Your task to perform on an android device: Search for hotels in Washington DC Image 0: 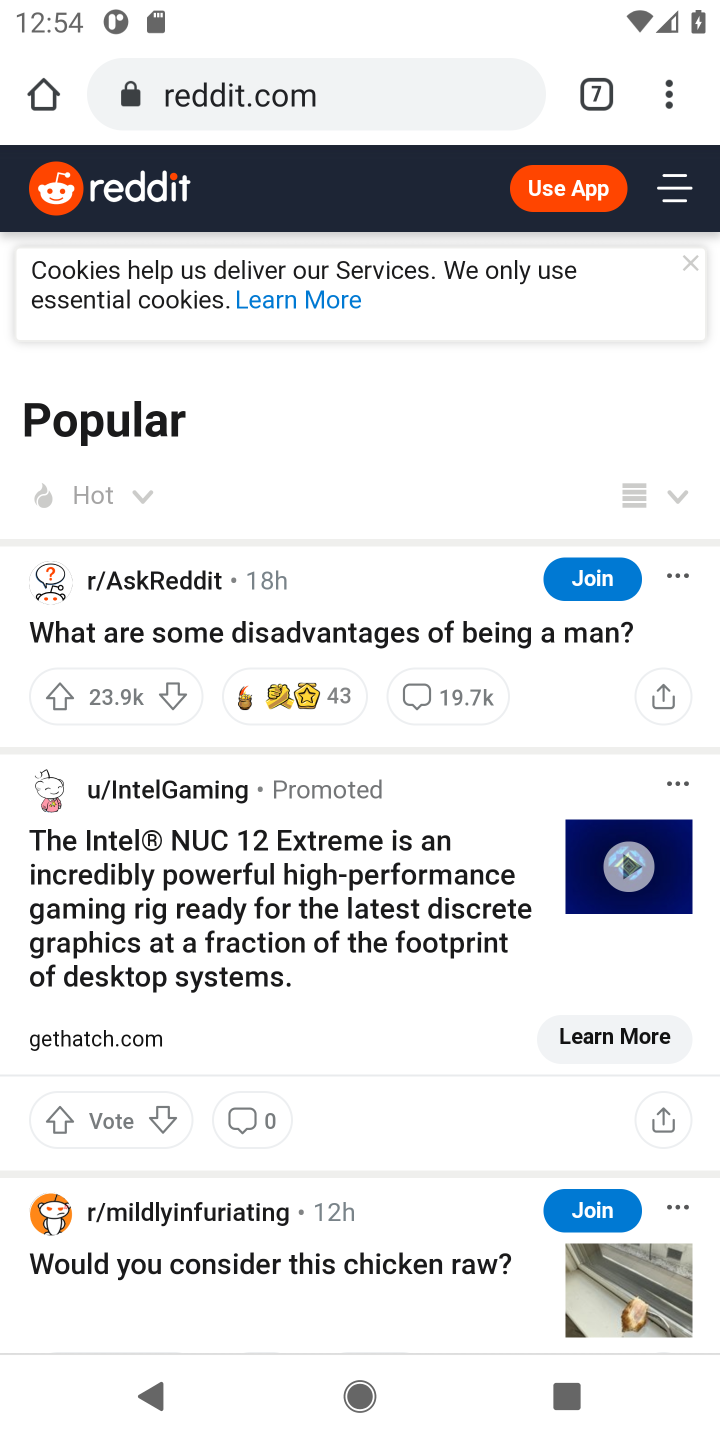
Step 0: press home button
Your task to perform on an android device: Search for hotels in Washington DC Image 1: 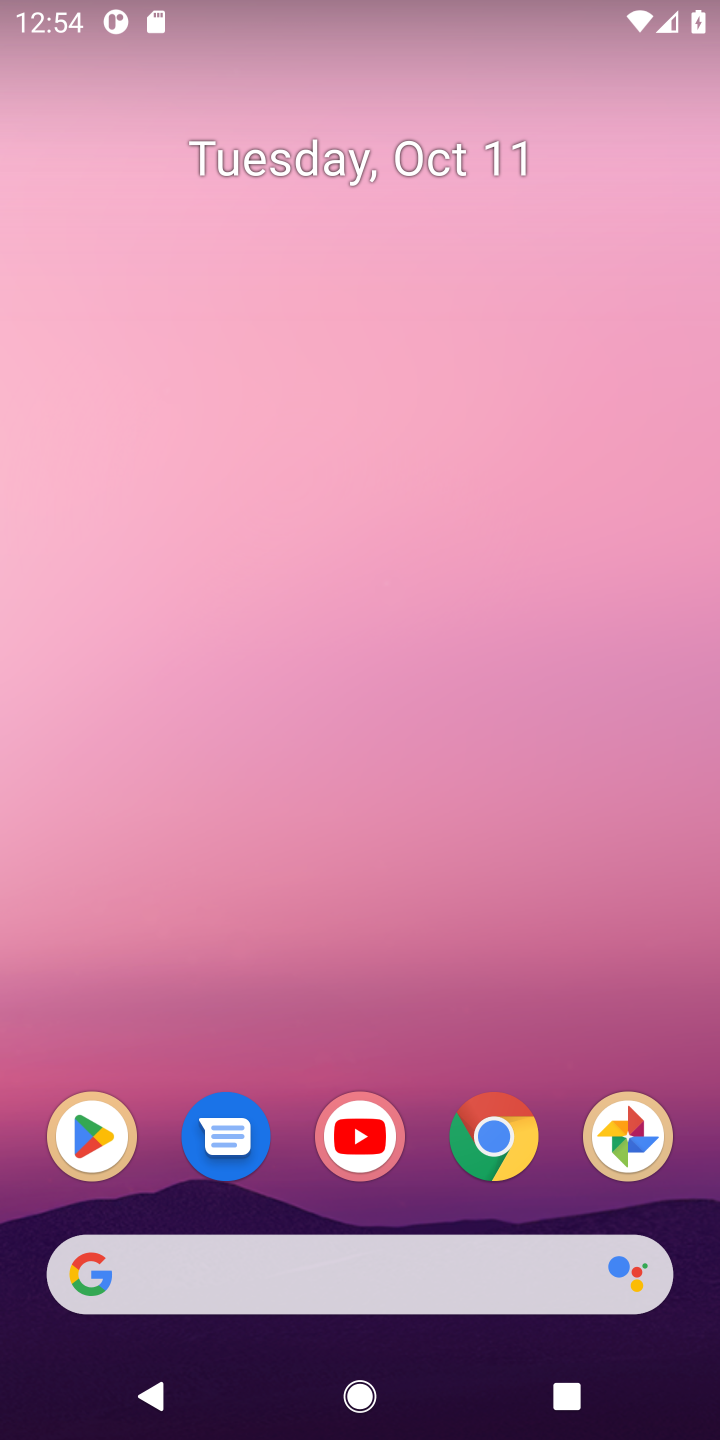
Step 1: click (342, 1268)
Your task to perform on an android device: Search for hotels in Washington DC Image 2: 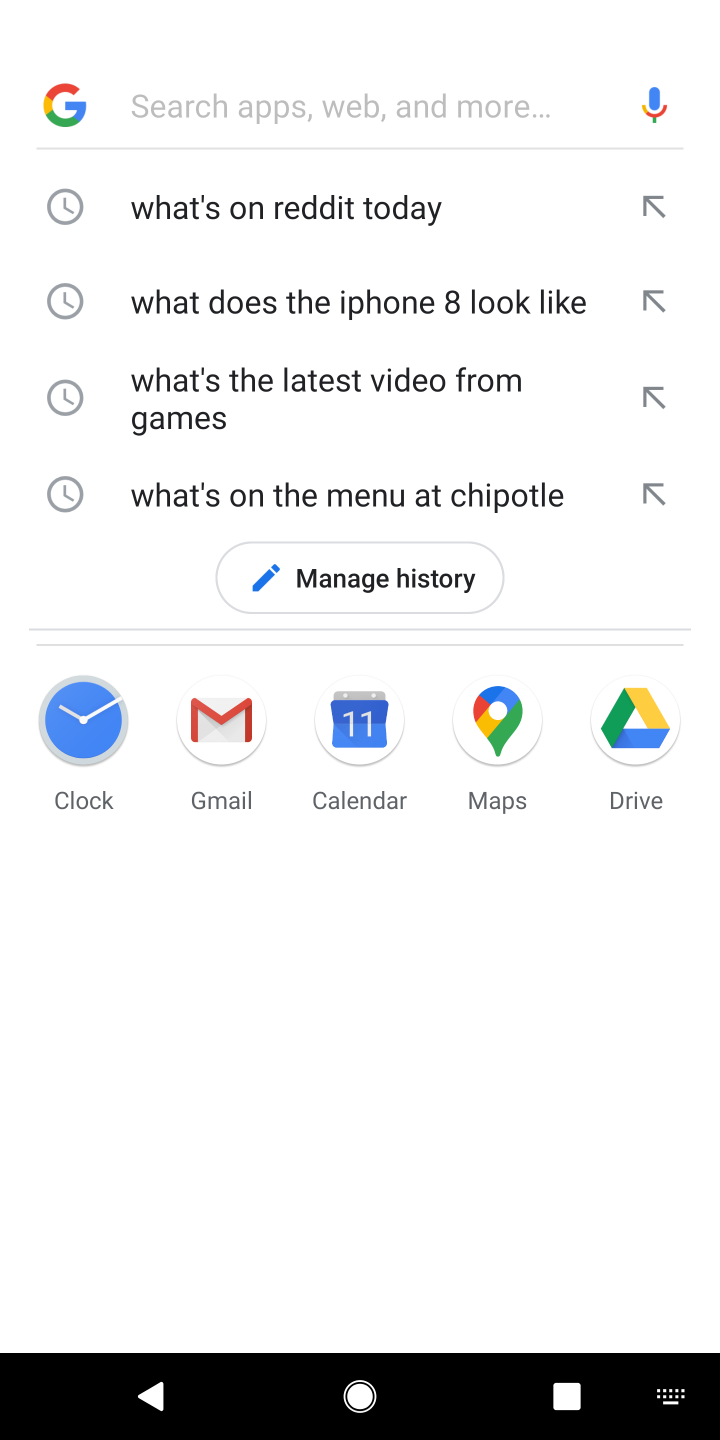
Step 2: type "hotels in Washington DC"
Your task to perform on an android device: Search for hotels in Washington DC Image 3: 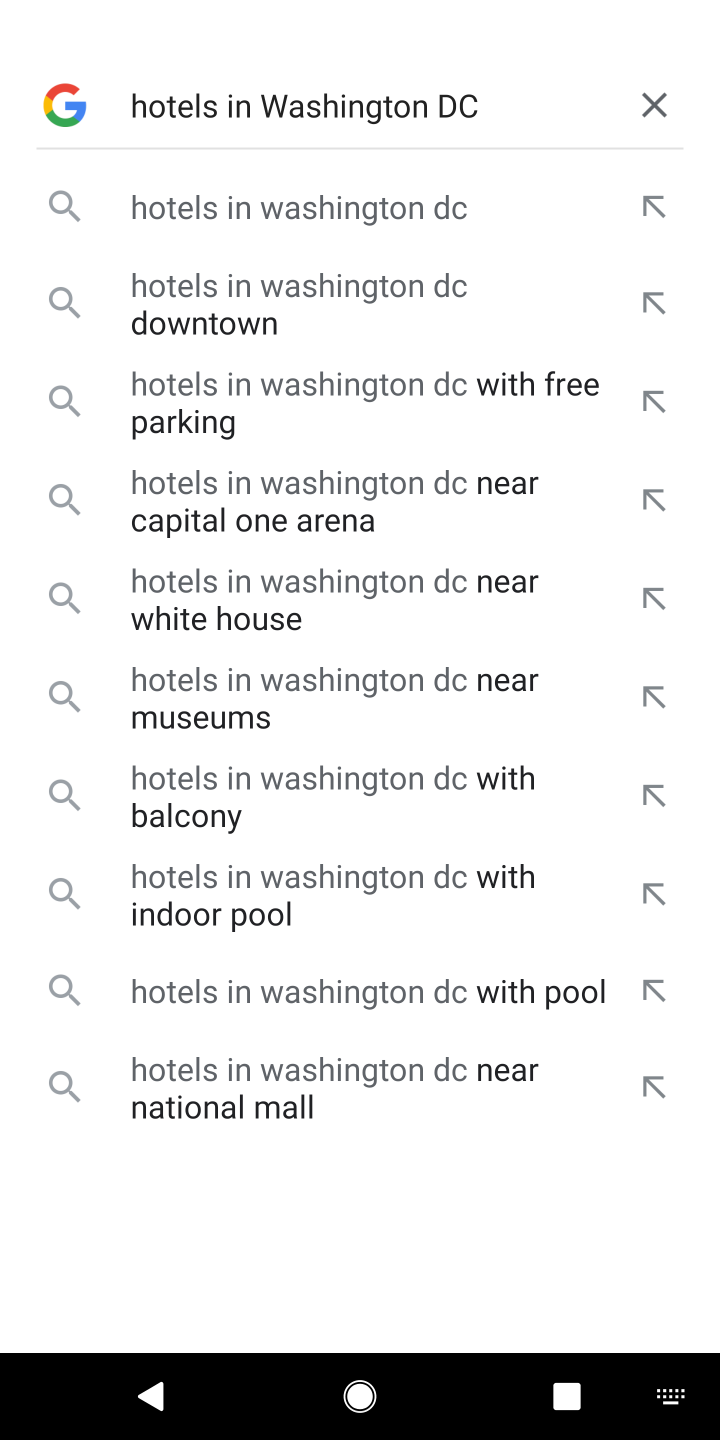
Step 3: press enter
Your task to perform on an android device: Search for hotels in Washington DC Image 4: 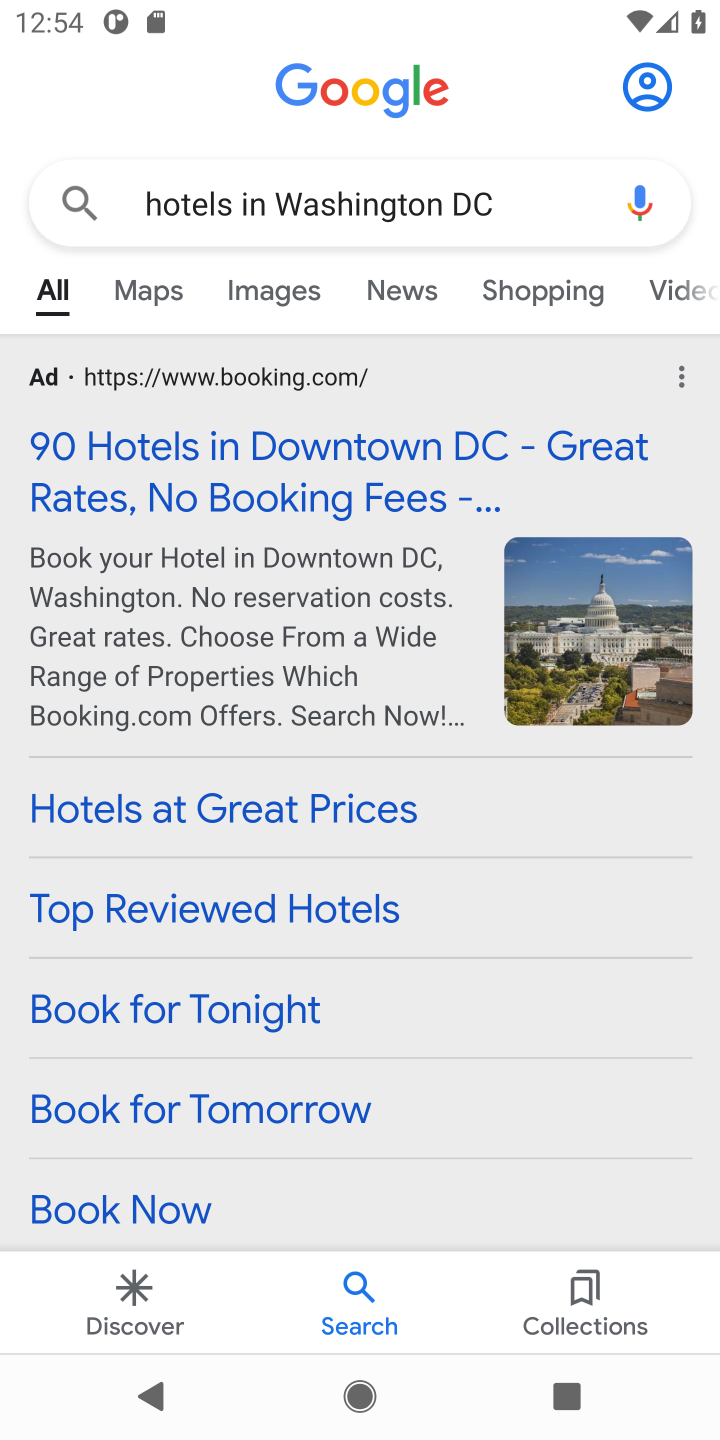
Step 4: drag from (482, 1032) to (481, 755)
Your task to perform on an android device: Search for hotels in Washington DC Image 5: 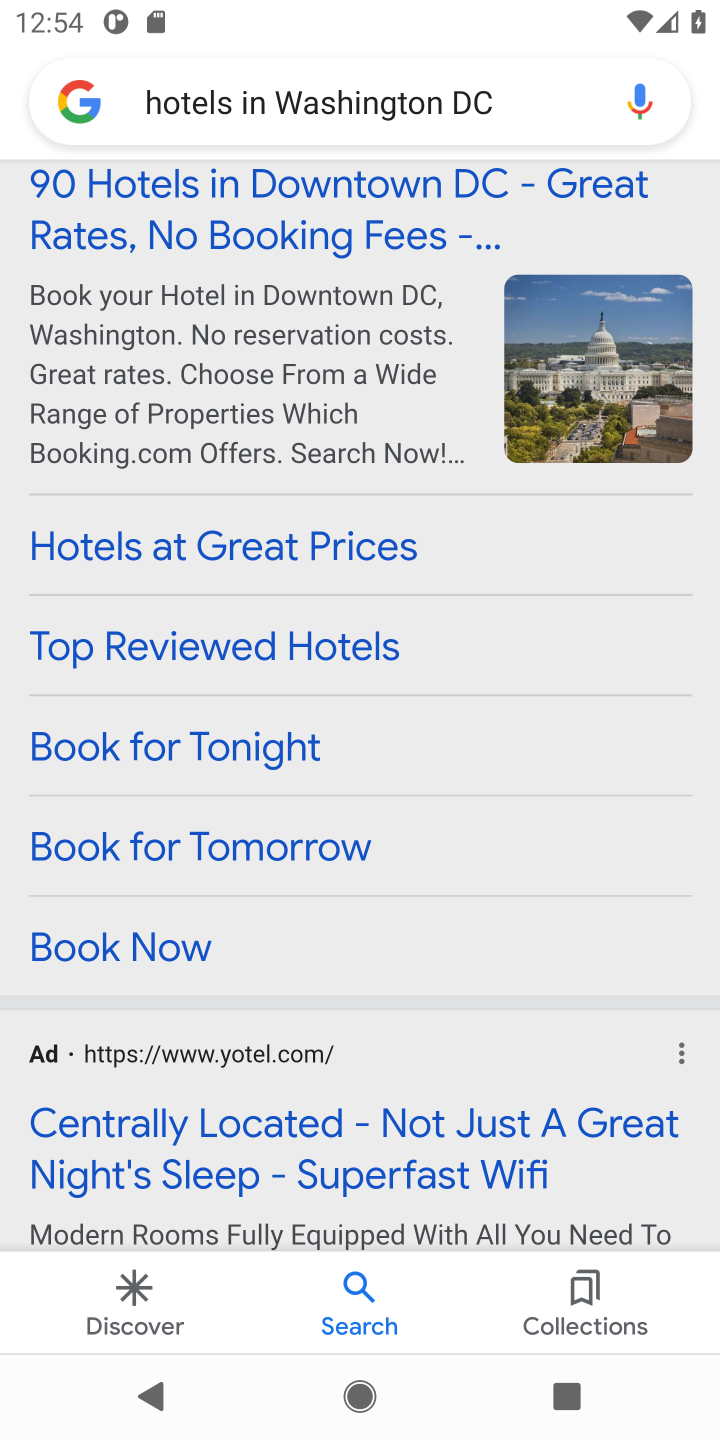
Step 5: drag from (425, 353) to (471, 888)
Your task to perform on an android device: Search for hotels in Washington DC Image 6: 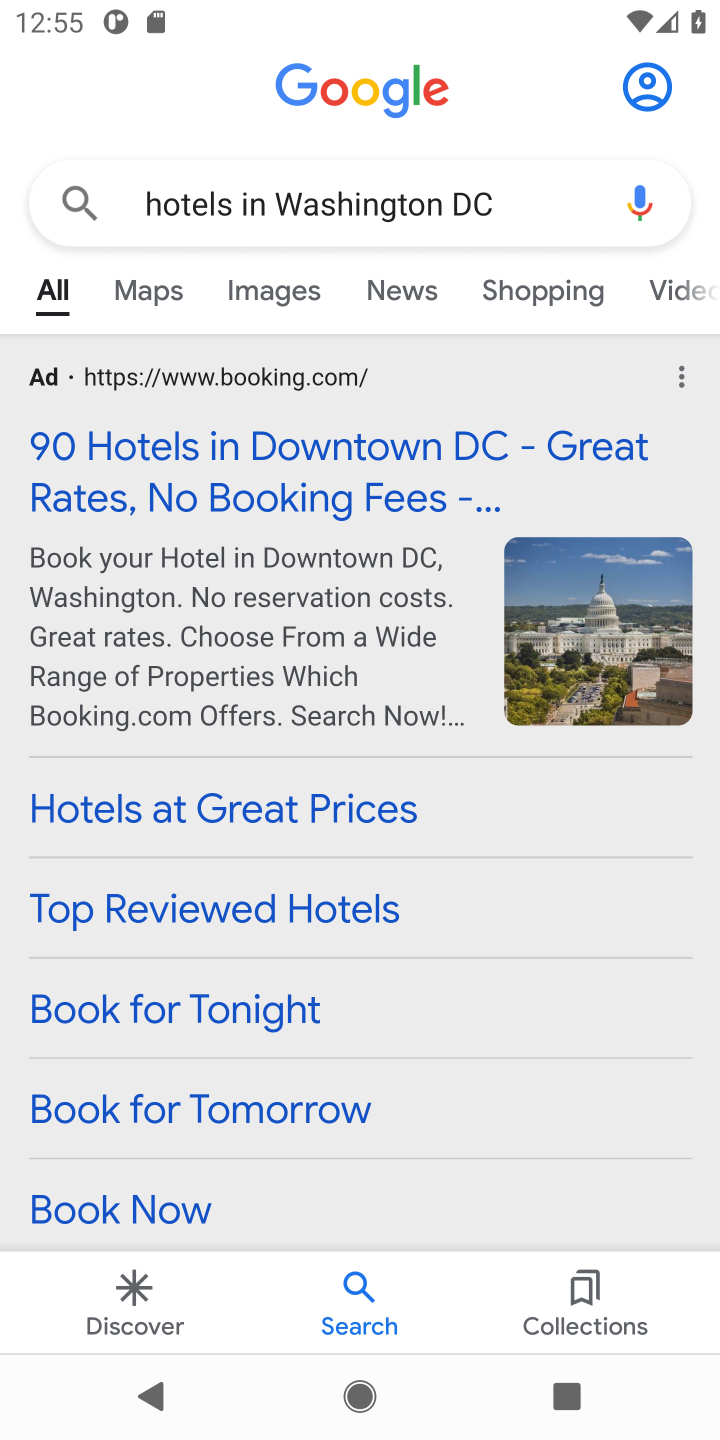
Step 6: click (289, 485)
Your task to perform on an android device: Search for hotels in Washington DC Image 7: 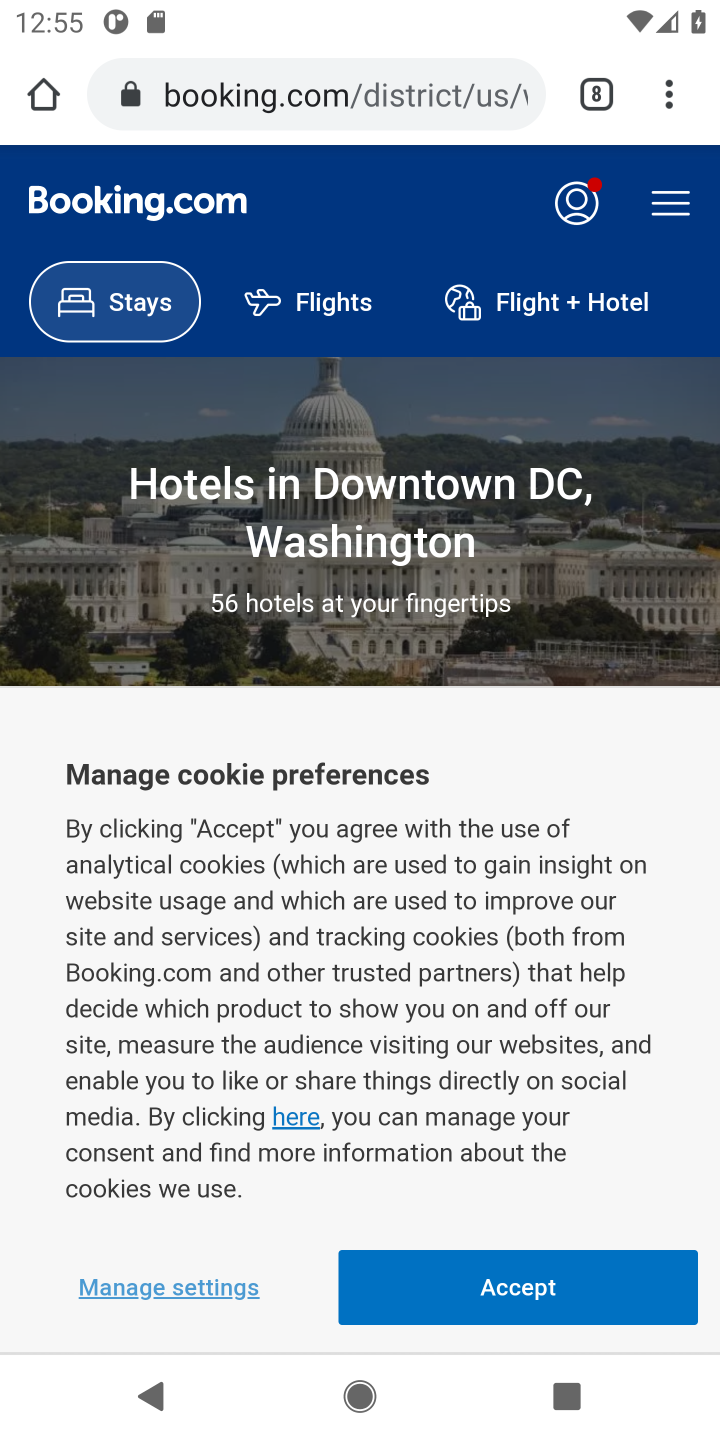
Step 7: click (439, 1301)
Your task to perform on an android device: Search for hotels in Washington DC Image 8: 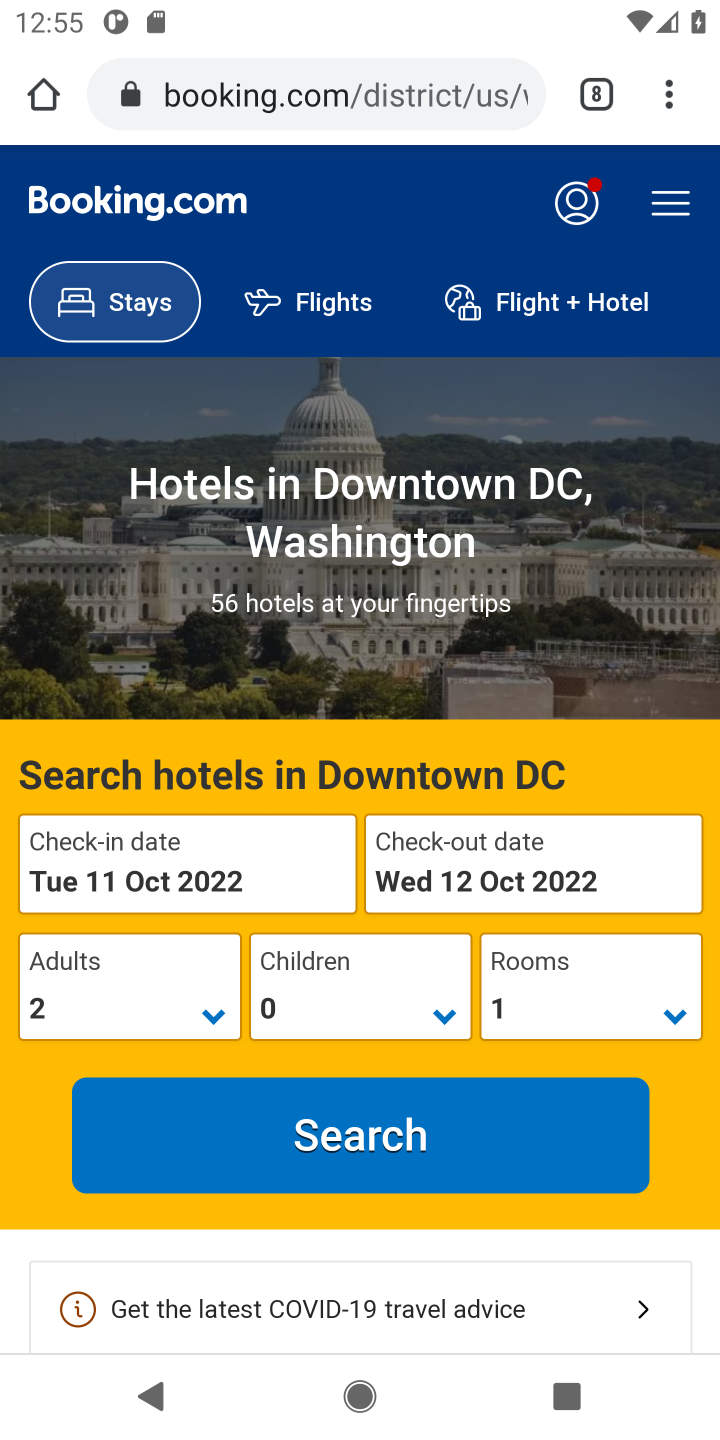
Step 8: click (388, 1157)
Your task to perform on an android device: Search for hotels in Washington DC Image 9: 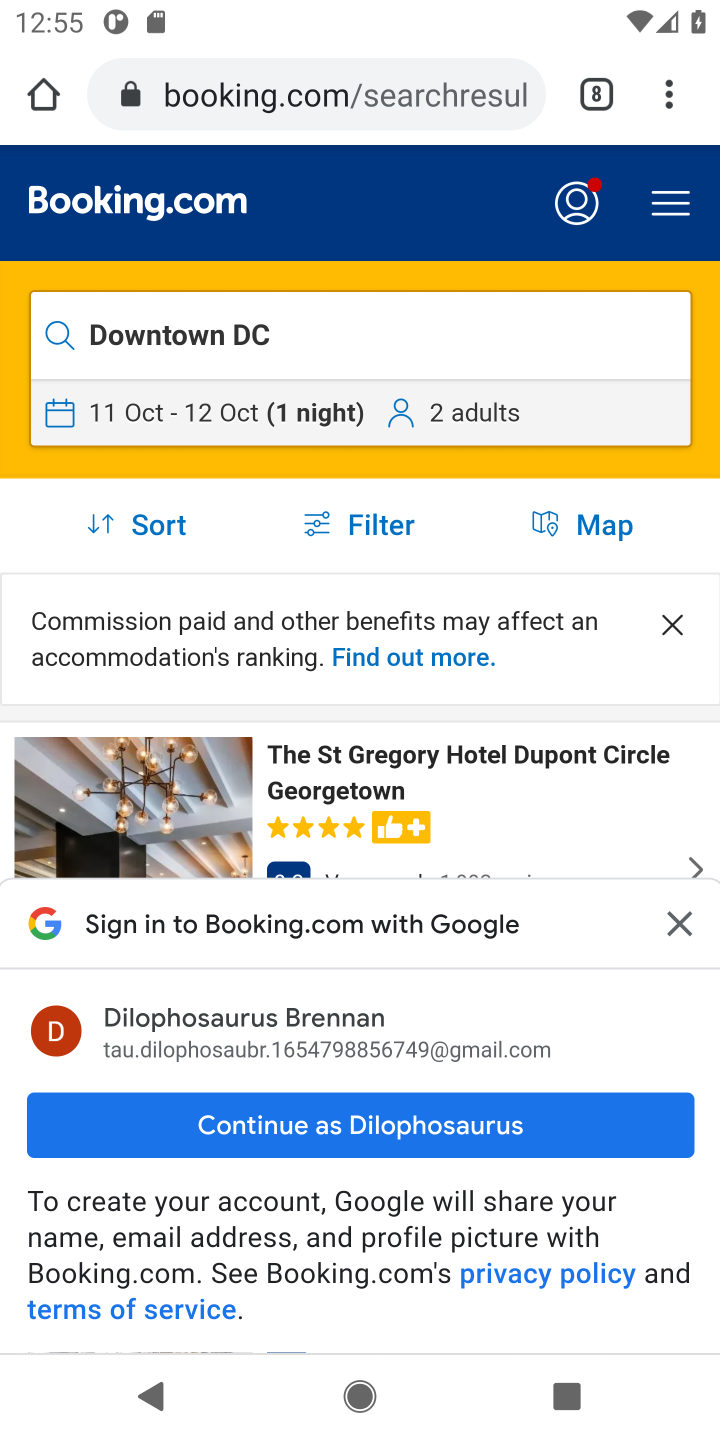
Step 9: click (510, 1133)
Your task to perform on an android device: Search for hotels in Washington DC Image 10: 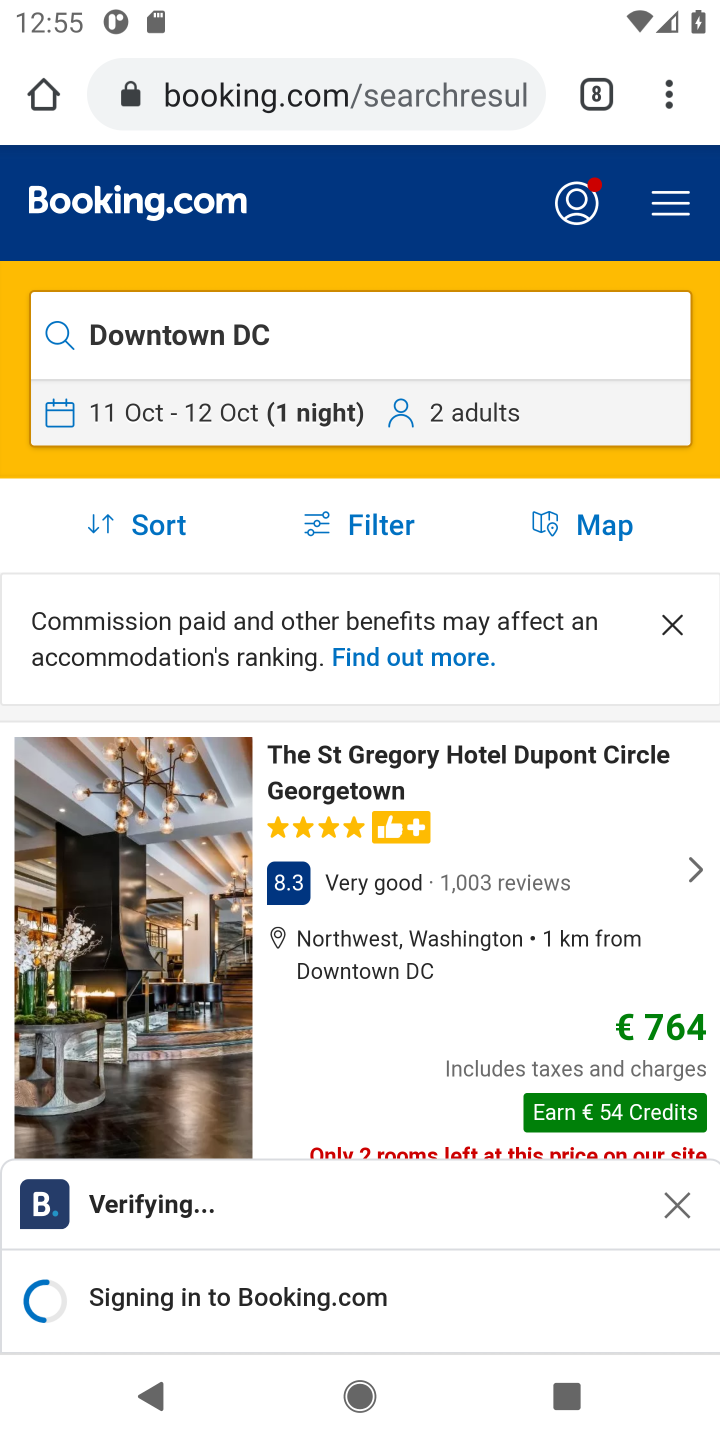
Step 10: drag from (510, 951) to (519, 642)
Your task to perform on an android device: Search for hotels in Washington DC Image 11: 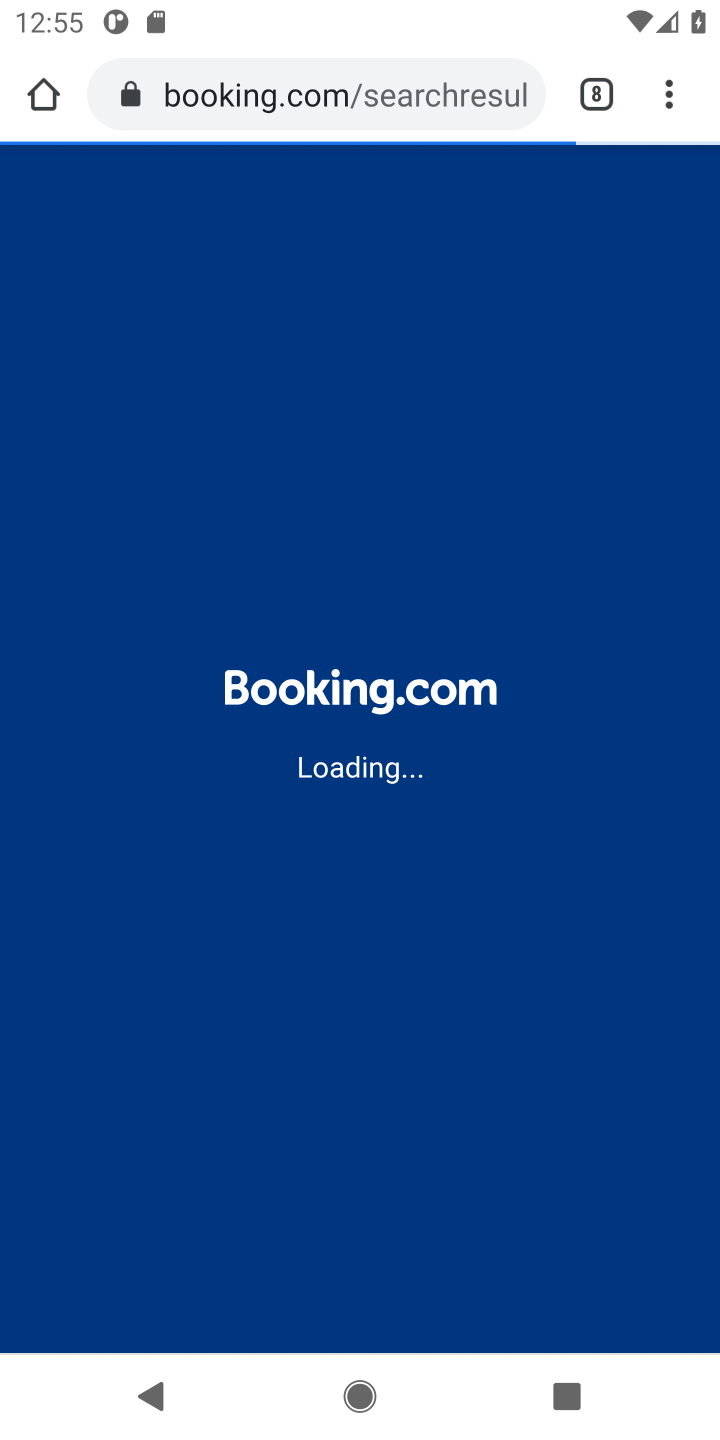
Step 11: drag from (440, 1006) to (488, 575)
Your task to perform on an android device: Search for hotels in Washington DC Image 12: 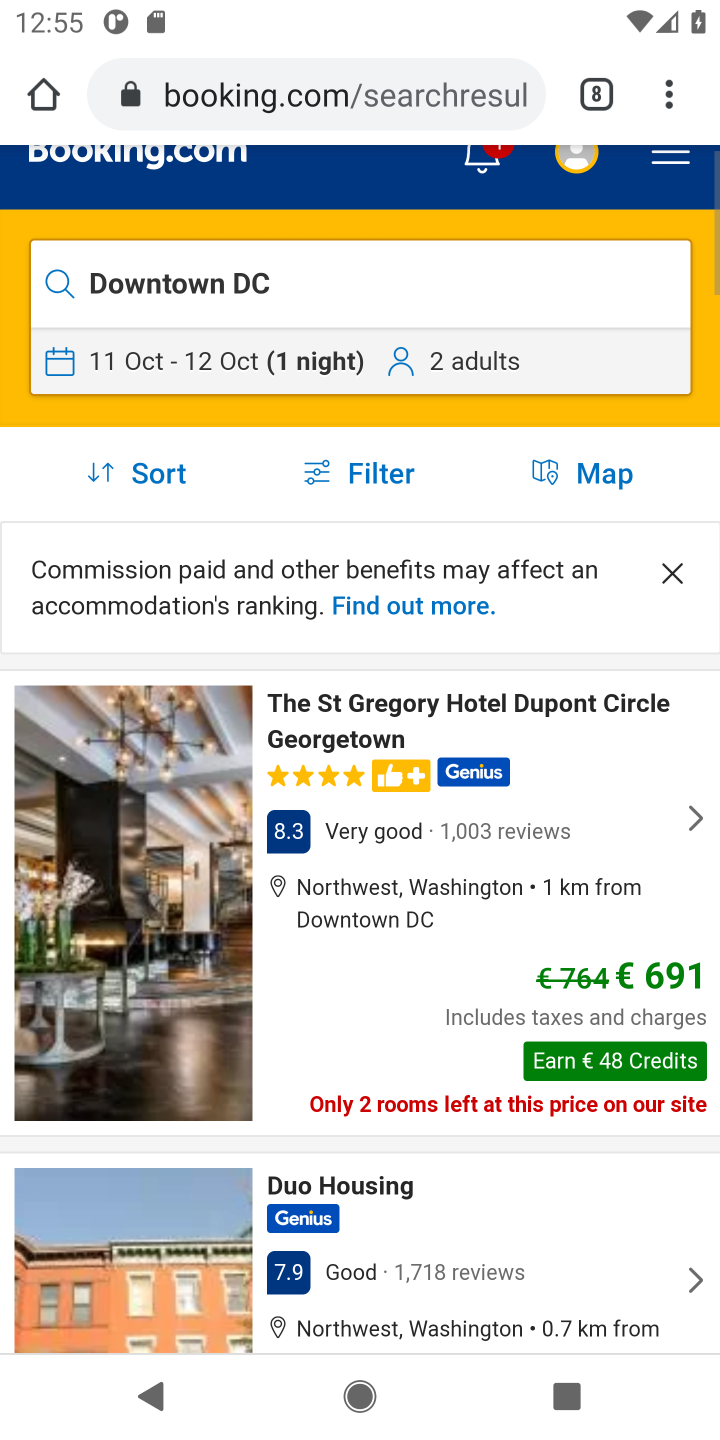
Step 12: drag from (446, 1056) to (515, 646)
Your task to perform on an android device: Search for hotels in Washington DC Image 13: 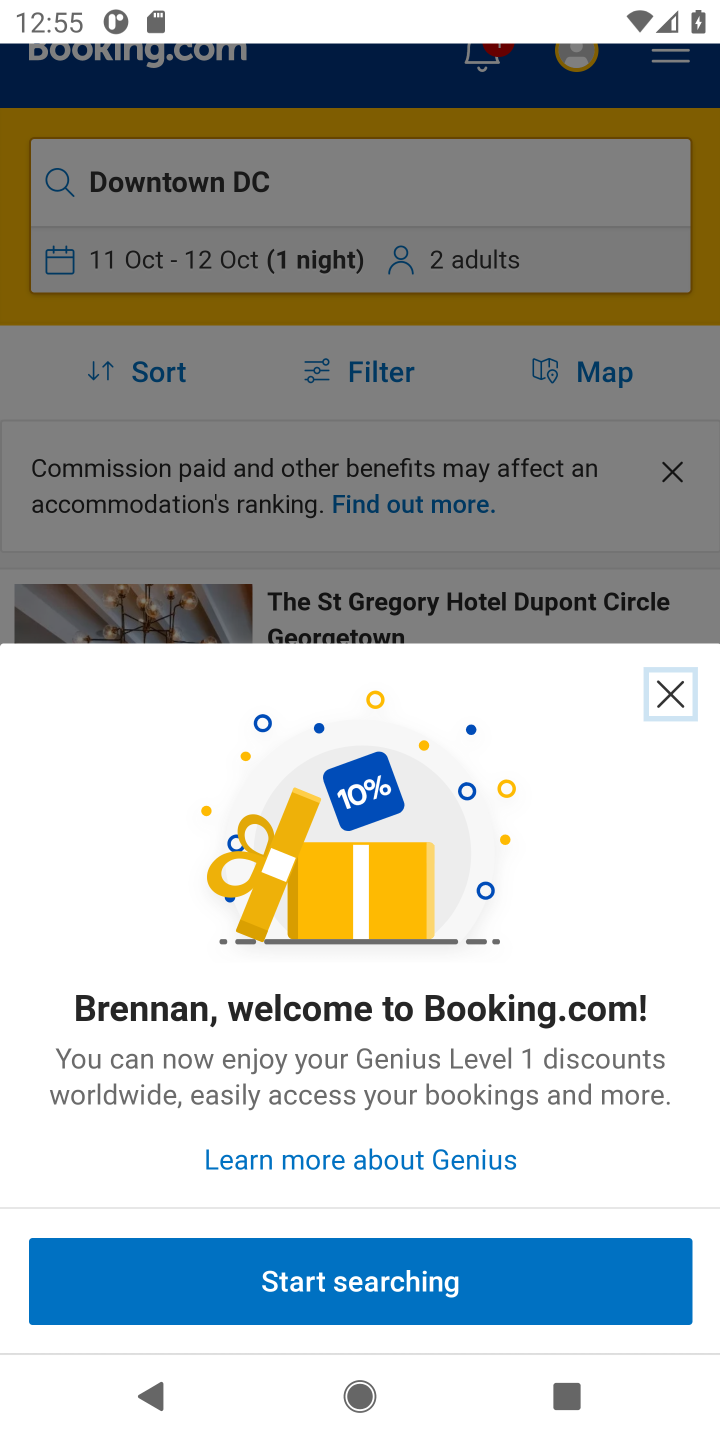
Step 13: click (664, 695)
Your task to perform on an android device: Search for hotels in Washington DC Image 14: 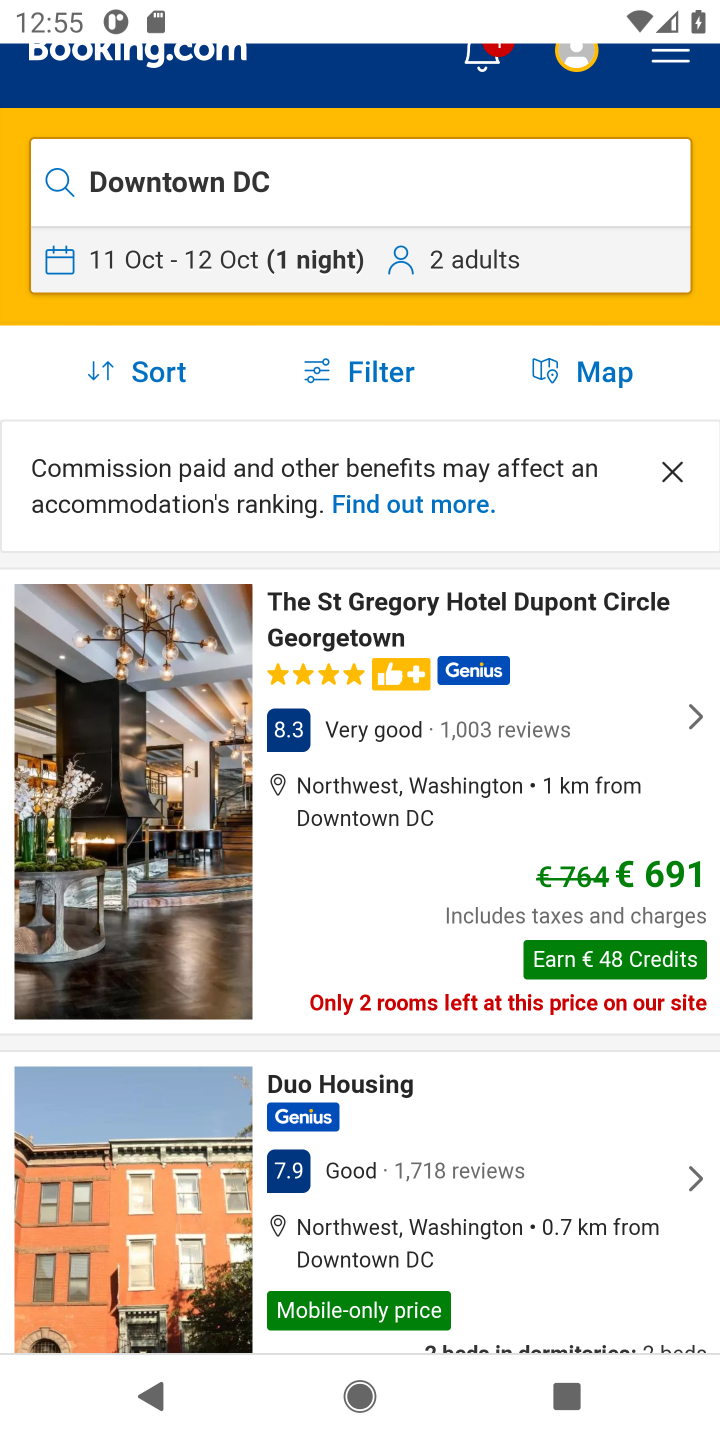
Step 14: task complete